Your task to perform on an android device: toggle location history Image 0: 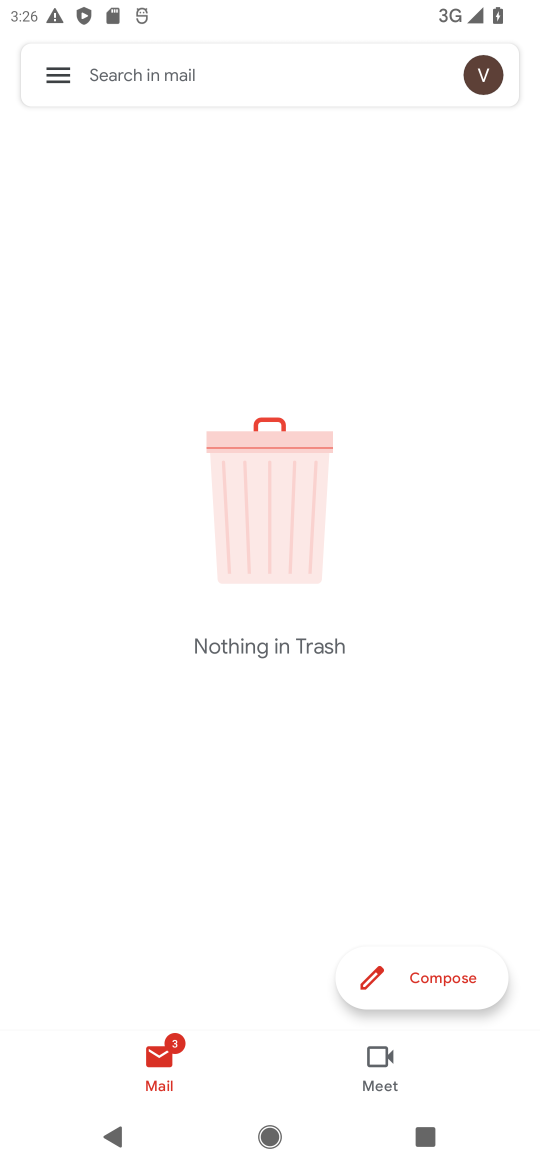
Step 0: press home button
Your task to perform on an android device: toggle location history Image 1: 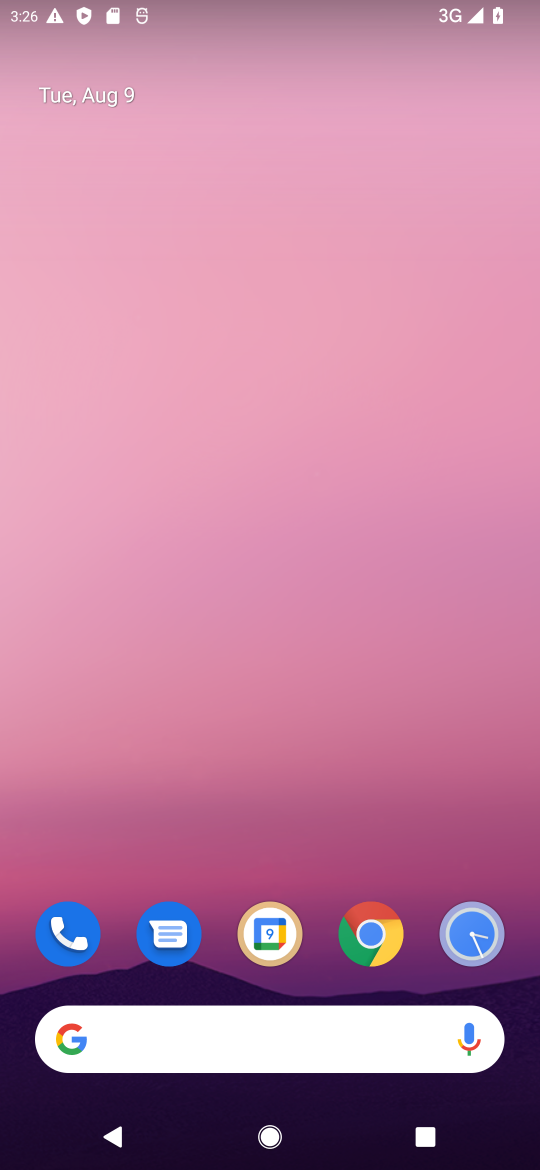
Step 1: drag from (334, 979) to (304, 92)
Your task to perform on an android device: toggle location history Image 2: 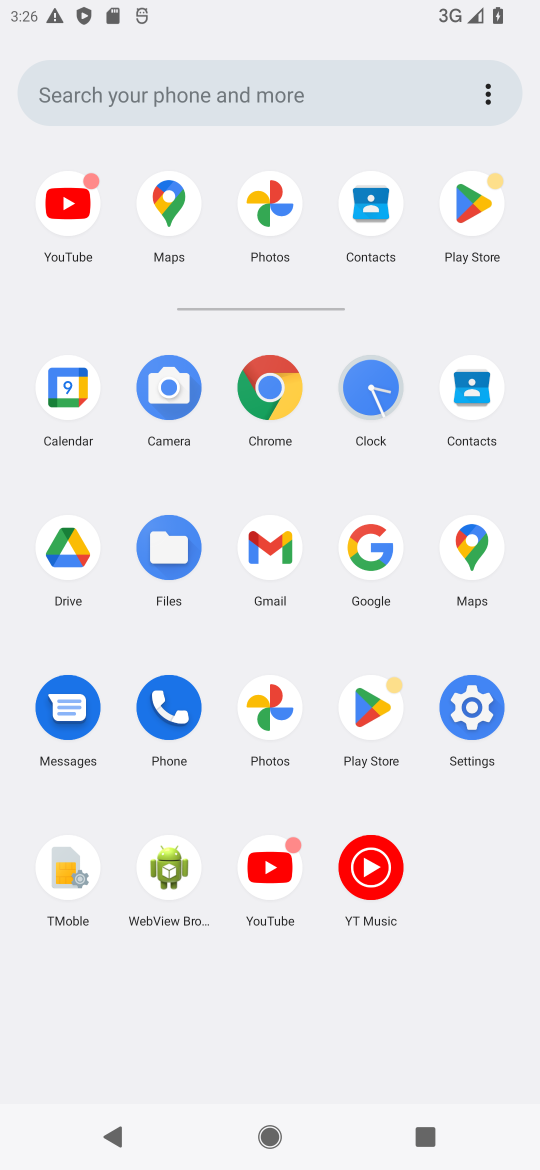
Step 2: click (473, 699)
Your task to perform on an android device: toggle location history Image 3: 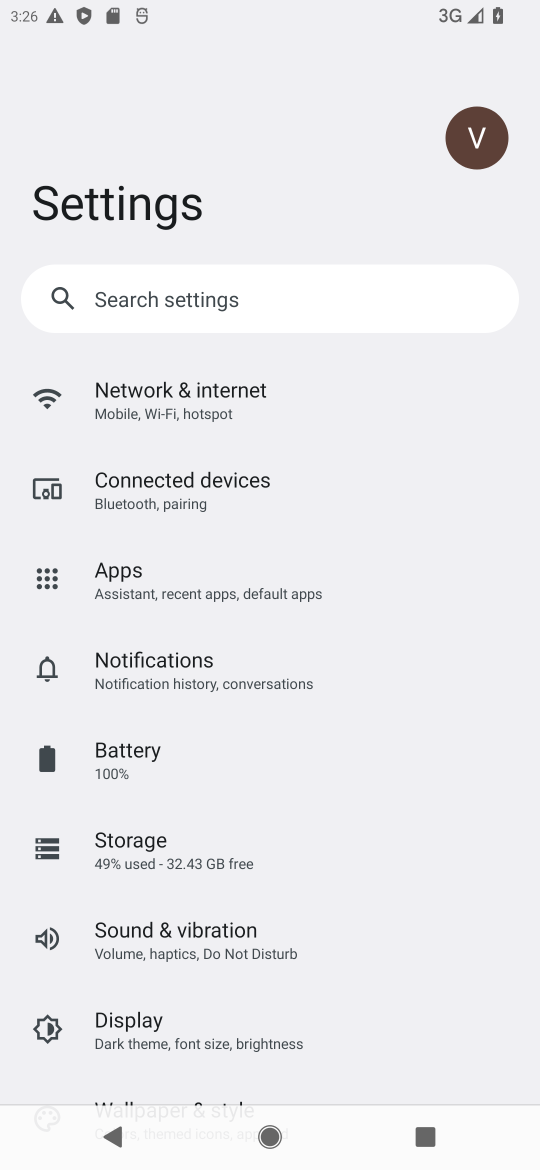
Step 3: task complete